Your task to perform on an android device: change the clock style Image 0: 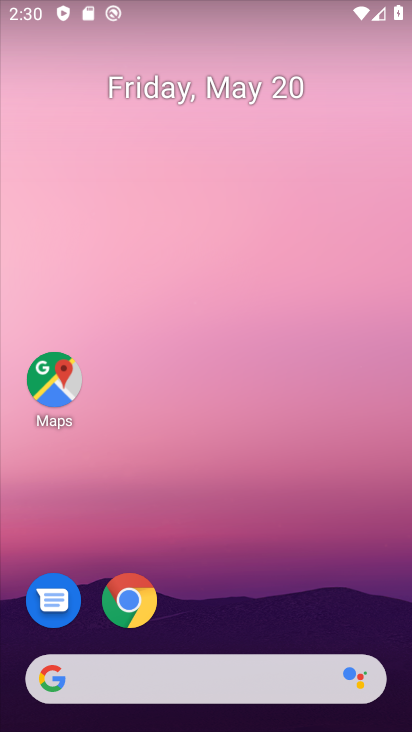
Step 0: drag from (375, 597) to (342, 263)
Your task to perform on an android device: change the clock style Image 1: 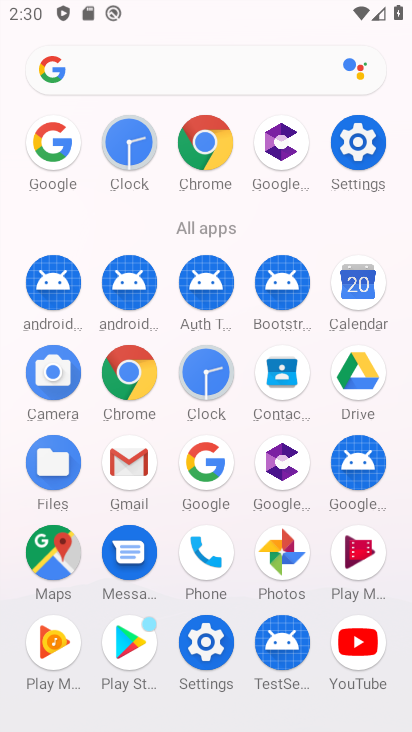
Step 1: click (202, 378)
Your task to perform on an android device: change the clock style Image 2: 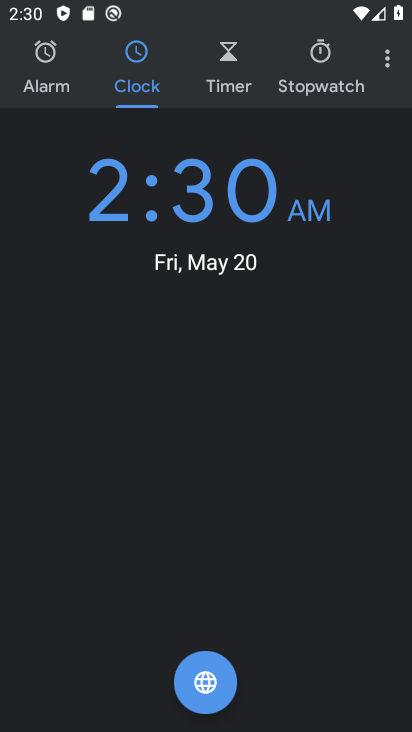
Step 2: click (389, 67)
Your task to perform on an android device: change the clock style Image 3: 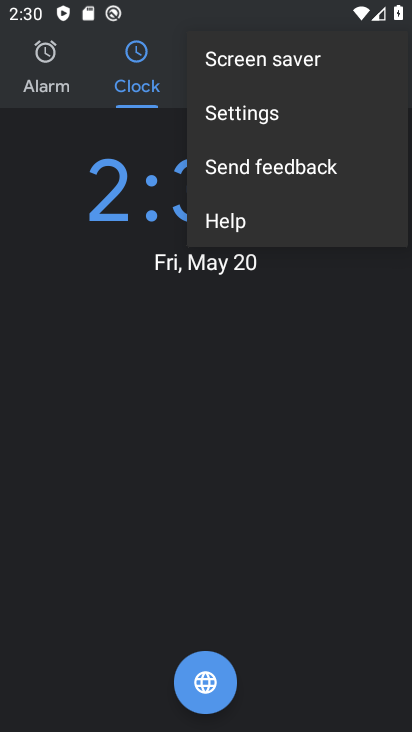
Step 3: click (285, 109)
Your task to perform on an android device: change the clock style Image 4: 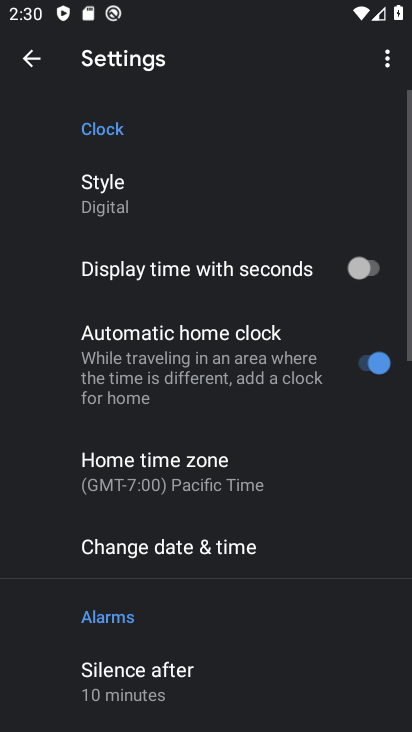
Step 4: drag from (307, 483) to (309, 417)
Your task to perform on an android device: change the clock style Image 5: 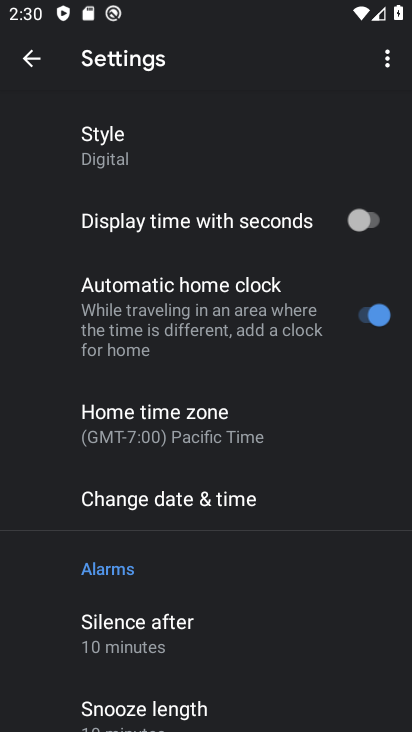
Step 5: drag from (311, 528) to (310, 436)
Your task to perform on an android device: change the clock style Image 6: 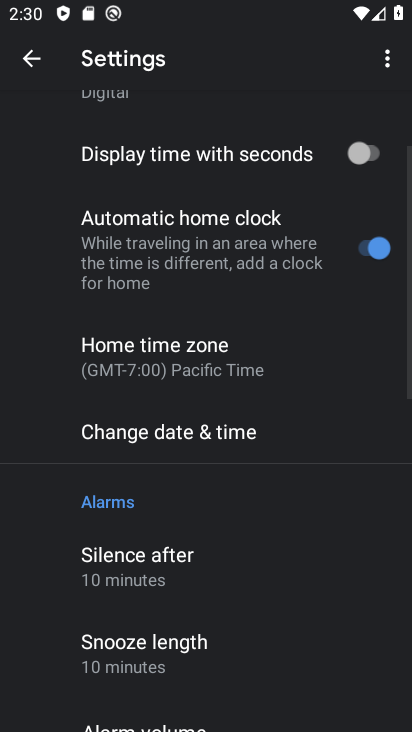
Step 6: drag from (306, 520) to (305, 437)
Your task to perform on an android device: change the clock style Image 7: 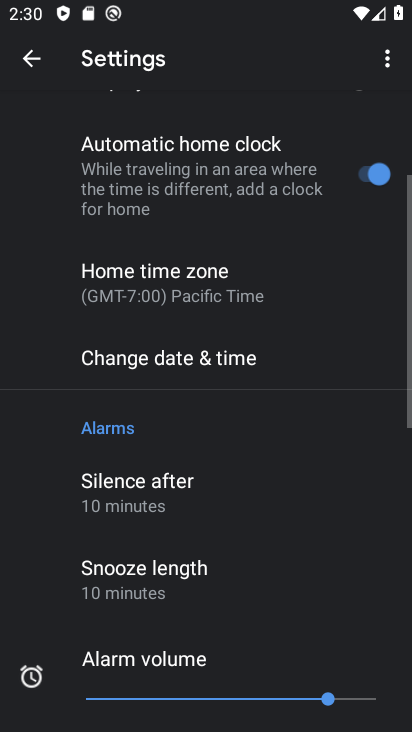
Step 7: drag from (301, 531) to (301, 452)
Your task to perform on an android device: change the clock style Image 8: 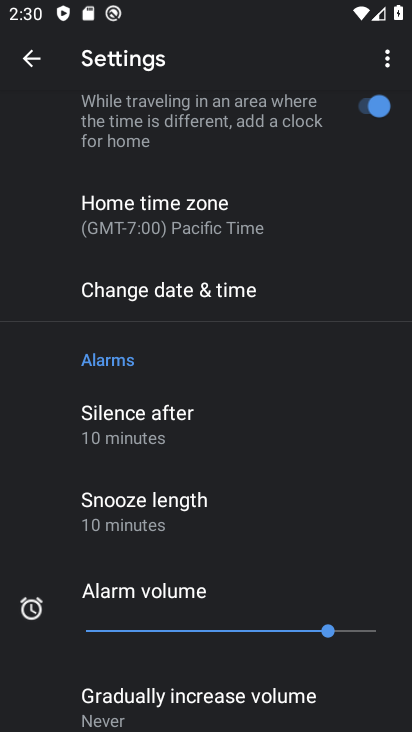
Step 8: drag from (277, 517) to (282, 453)
Your task to perform on an android device: change the clock style Image 9: 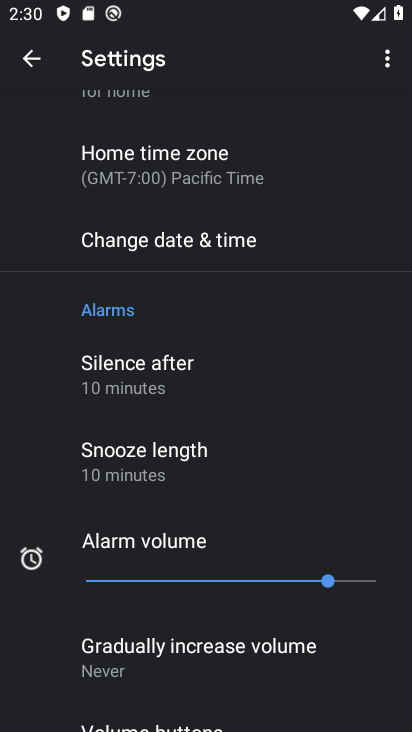
Step 9: drag from (274, 538) to (274, 468)
Your task to perform on an android device: change the clock style Image 10: 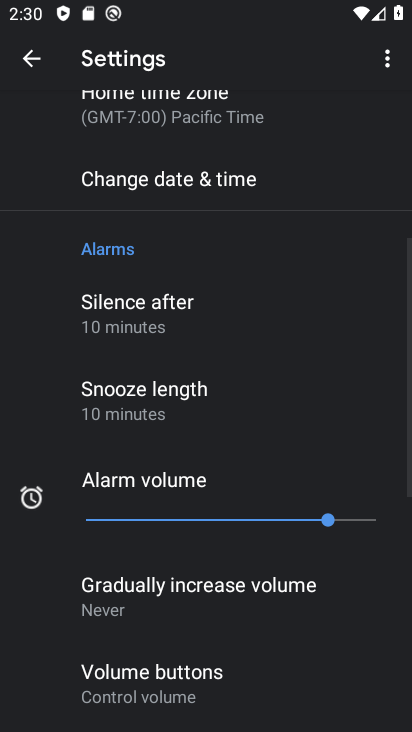
Step 10: drag from (268, 516) to (263, 424)
Your task to perform on an android device: change the clock style Image 11: 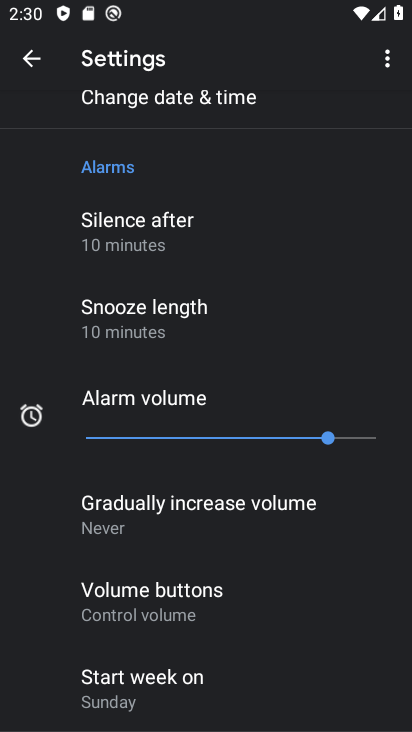
Step 11: drag from (254, 556) to (262, 453)
Your task to perform on an android device: change the clock style Image 12: 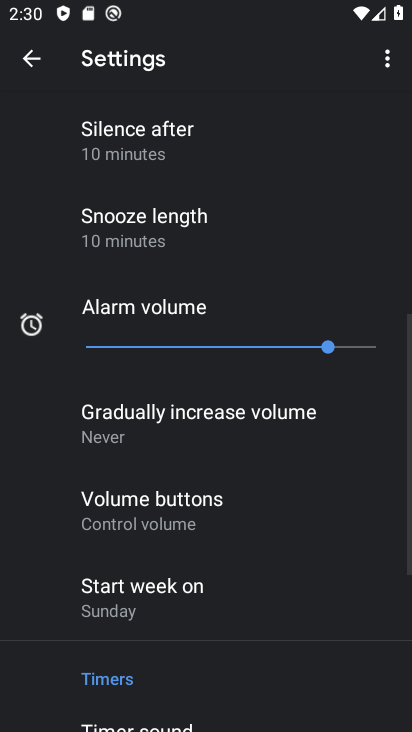
Step 12: drag from (267, 569) to (266, 478)
Your task to perform on an android device: change the clock style Image 13: 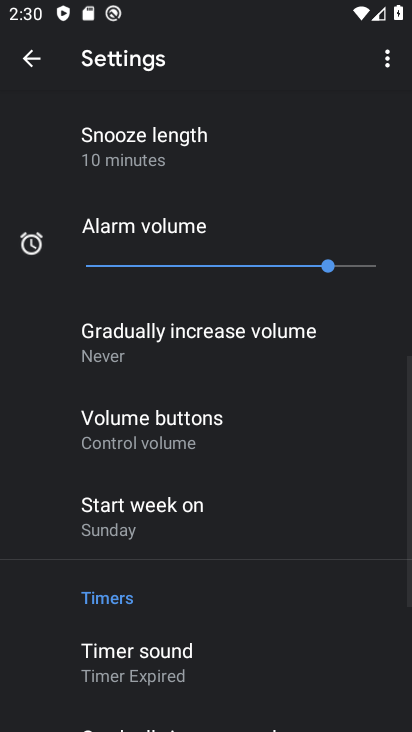
Step 13: drag from (264, 571) to (266, 470)
Your task to perform on an android device: change the clock style Image 14: 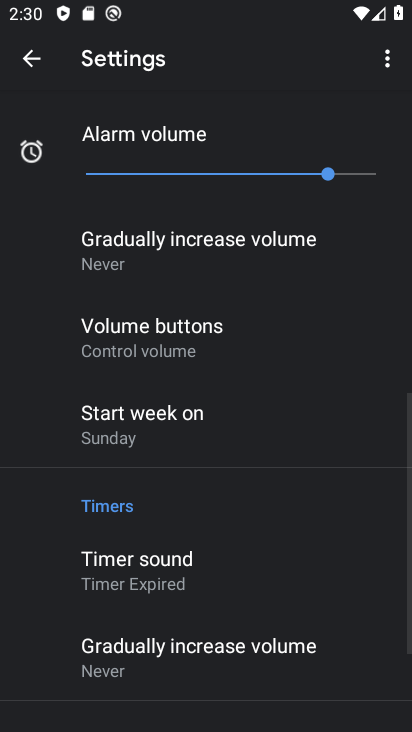
Step 14: drag from (251, 584) to (252, 494)
Your task to perform on an android device: change the clock style Image 15: 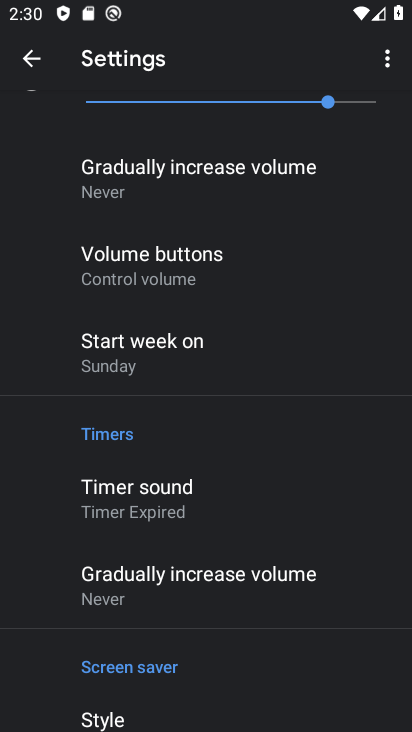
Step 15: drag from (257, 613) to (256, 523)
Your task to perform on an android device: change the clock style Image 16: 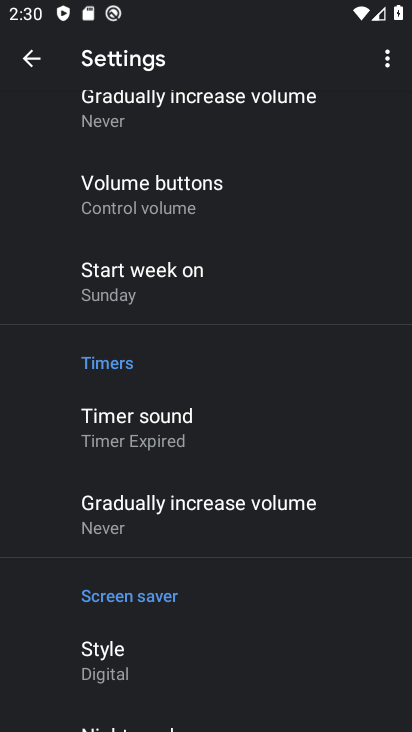
Step 16: drag from (250, 629) to (258, 553)
Your task to perform on an android device: change the clock style Image 17: 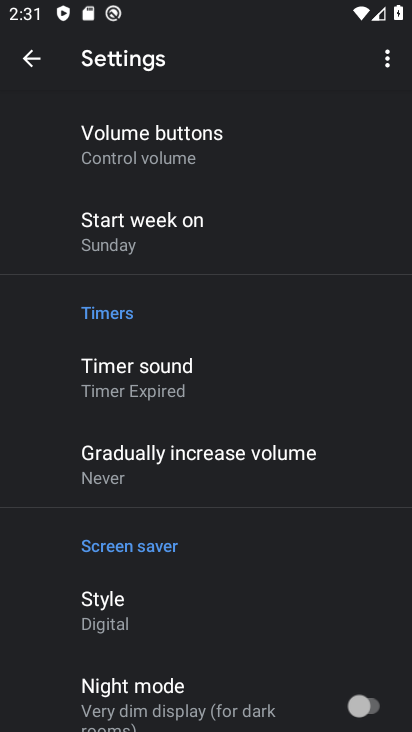
Step 17: drag from (248, 648) to (253, 569)
Your task to perform on an android device: change the clock style Image 18: 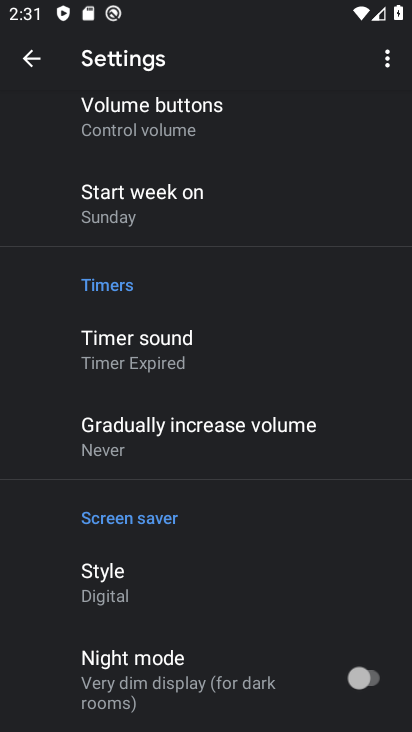
Step 18: drag from (263, 341) to (265, 465)
Your task to perform on an android device: change the clock style Image 19: 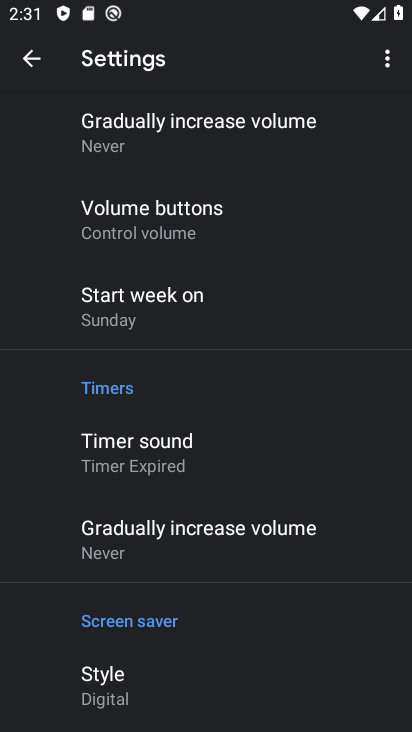
Step 19: drag from (271, 338) to (273, 433)
Your task to perform on an android device: change the clock style Image 20: 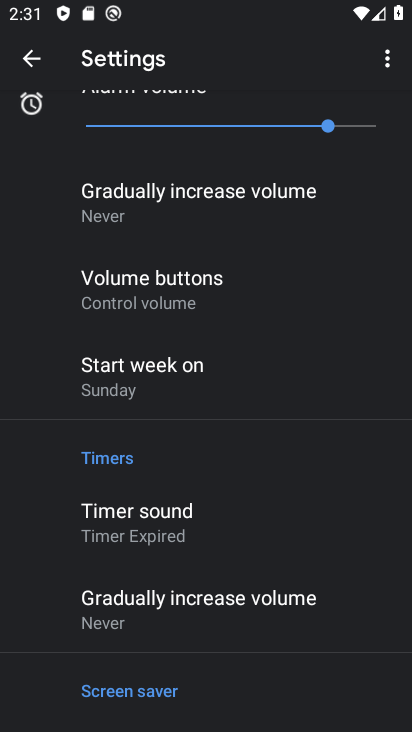
Step 20: drag from (269, 283) to (268, 390)
Your task to perform on an android device: change the clock style Image 21: 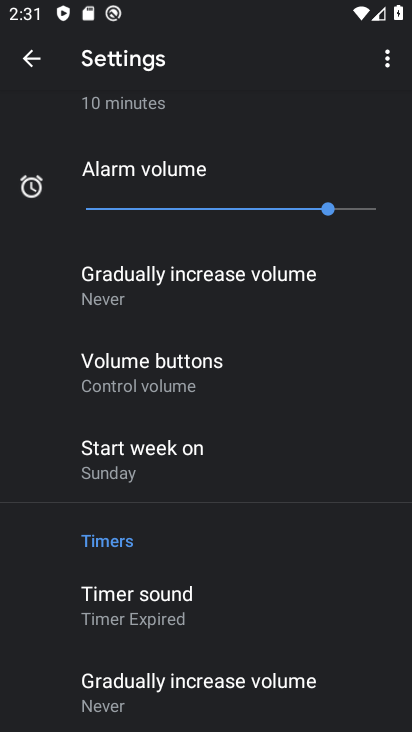
Step 21: drag from (255, 187) to (254, 313)
Your task to perform on an android device: change the clock style Image 22: 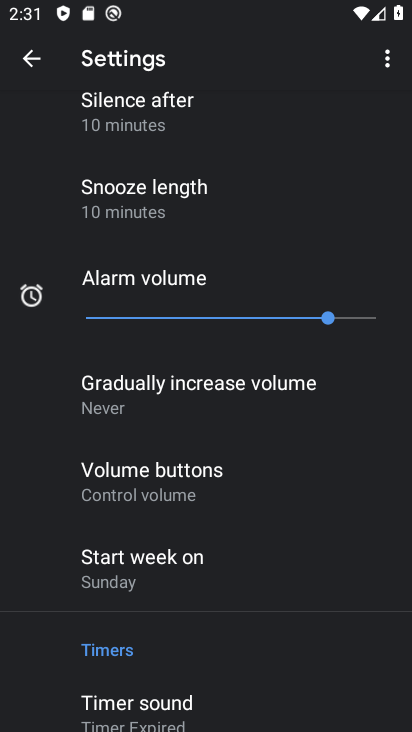
Step 22: drag from (260, 201) to (260, 271)
Your task to perform on an android device: change the clock style Image 23: 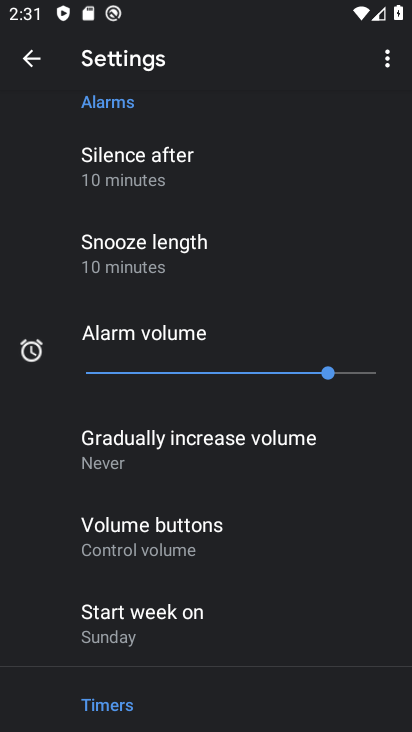
Step 23: drag from (268, 231) to (265, 329)
Your task to perform on an android device: change the clock style Image 24: 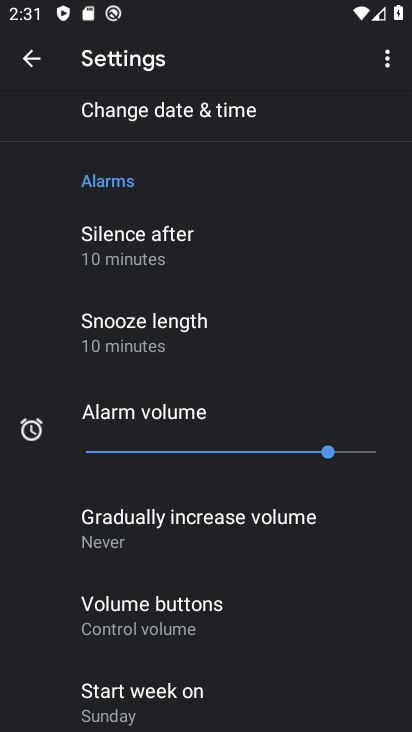
Step 24: drag from (279, 240) to (280, 333)
Your task to perform on an android device: change the clock style Image 25: 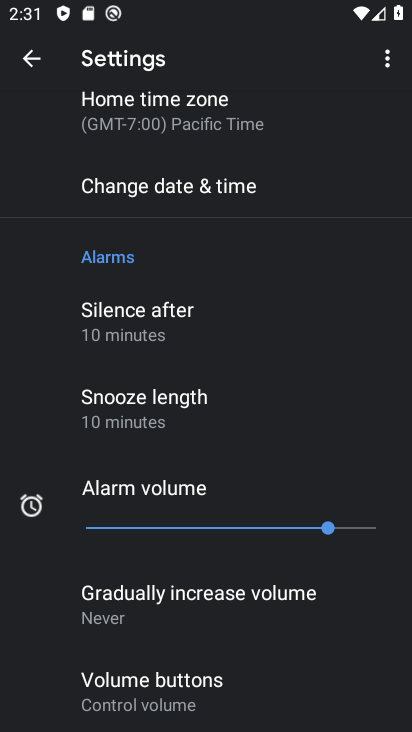
Step 25: drag from (299, 222) to (288, 339)
Your task to perform on an android device: change the clock style Image 26: 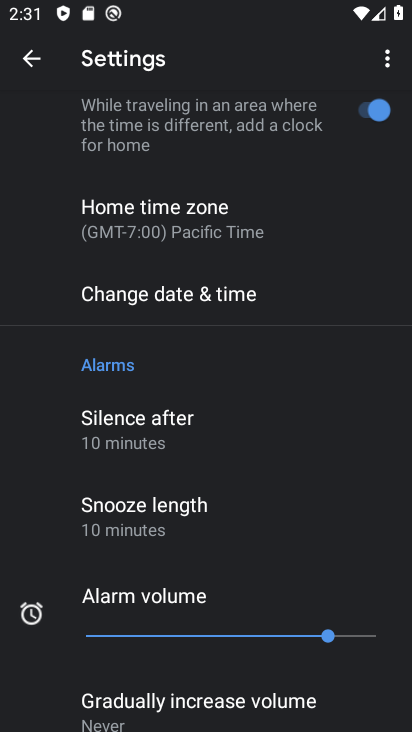
Step 26: drag from (296, 190) to (295, 309)
Your task to perform on an android device: change the clock style Image 27: 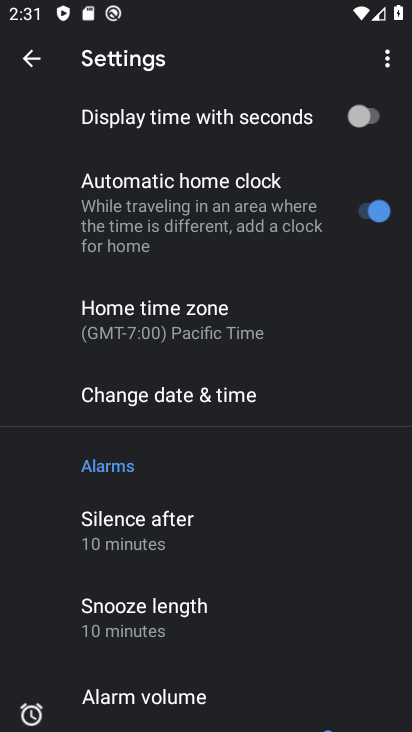
Step 27: drag from (300, 174) to (282, 337)
Your task to perform on an android device: change the clock style Image 28: 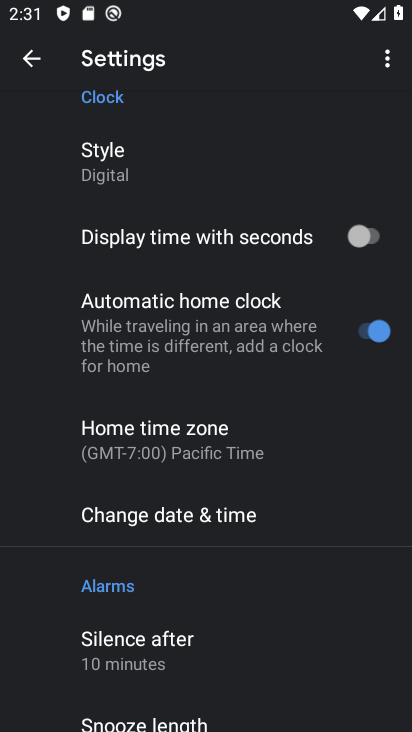
Step 28: drag from (263, 182) to (254, 313)
Your task to perform on an android device: change the clock style Image 29: 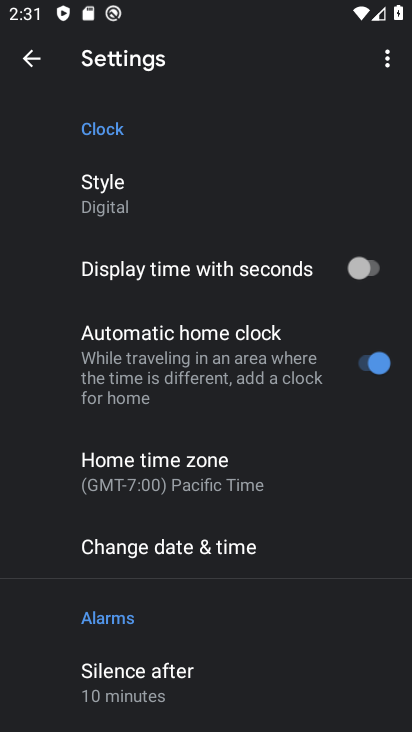
Step 29: click (99, 193)
Your task to perform on an android device: change the clock style Image 30: 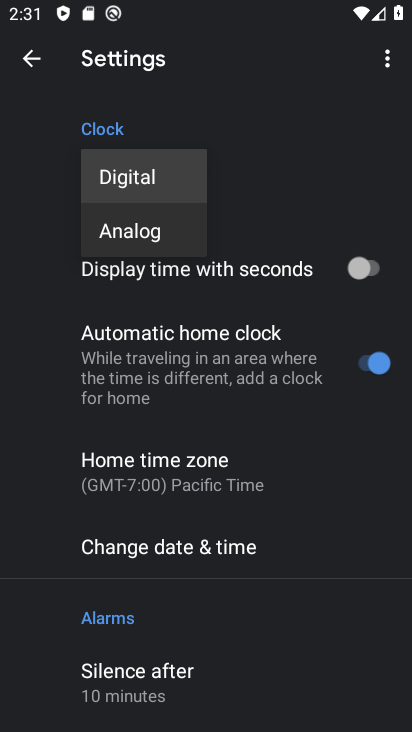
Step 30: click (149, 230)
Your task to perform on an android device: change the clock style Image 31: 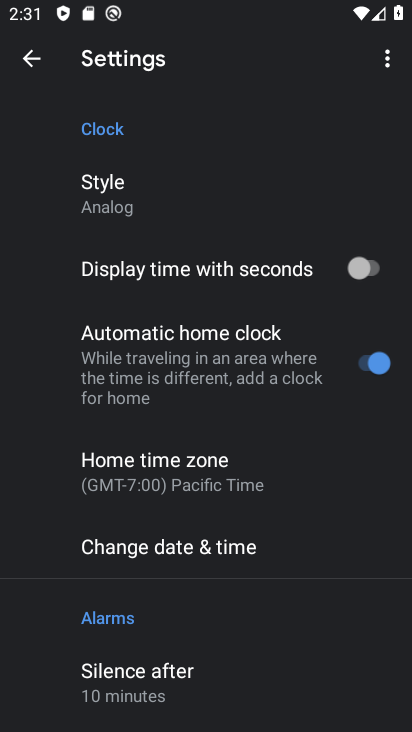
Step 31: task complete